Your task to perform on an android device: Go to internet settings Image 0: 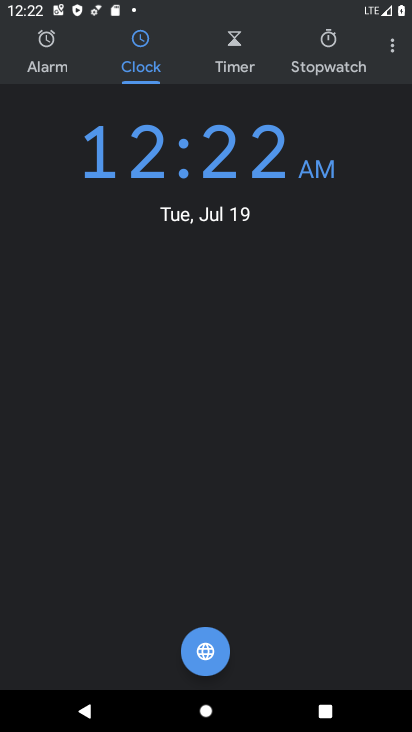
Step 0: drag from (271, 610) to (268, 28)
Your task to perform on an android device: Go to internet settings Image 1: 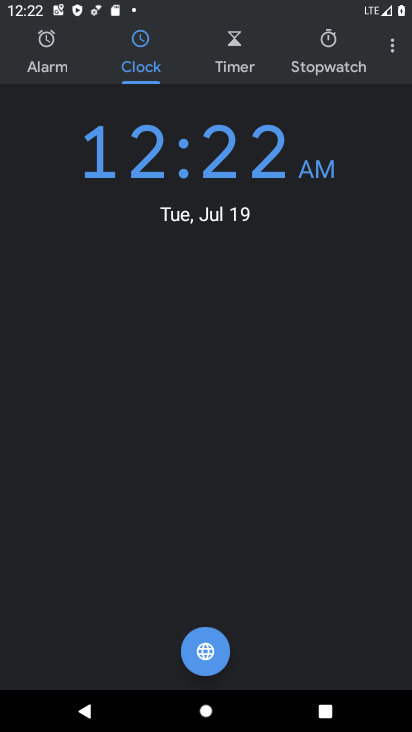
Step 1: press home button
Your task to perform on an android device: Go to internet settings Image 2: 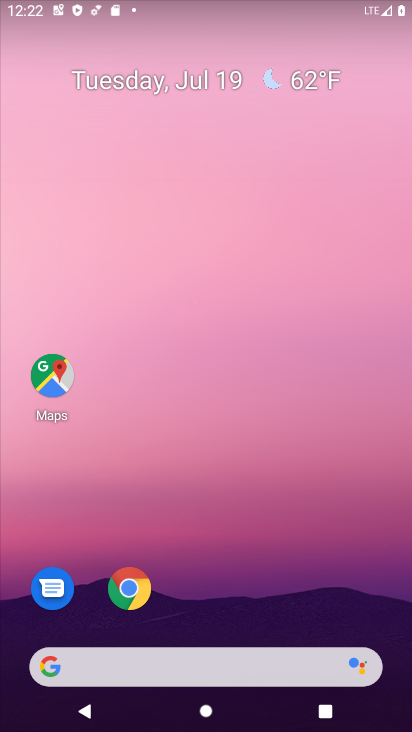
Step 2: drag from (248, 589) to (268, 96)
Your task to perform on an android device: Go to internet settings Image 3: 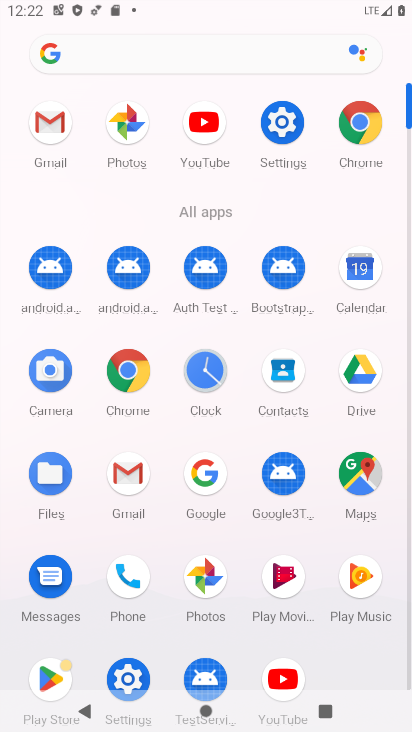
Step 3: click (288, 100)
Your task to perform on an android device: Go to internet settings Image 4: 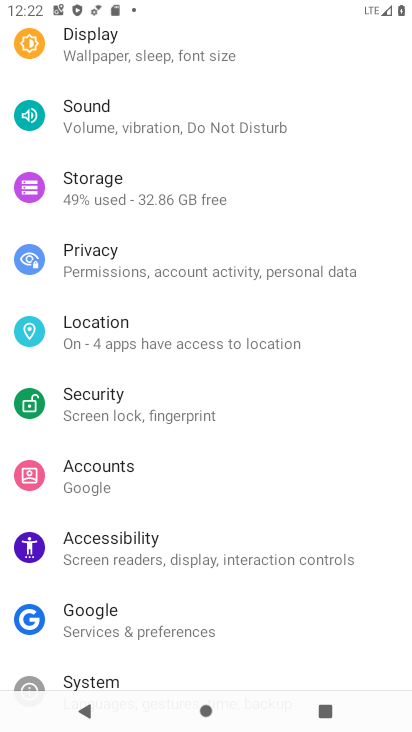
Step 4: drag from (152, 151) to (232, 405)
Your task to perform on an android device: Go to internet settings Image 5: 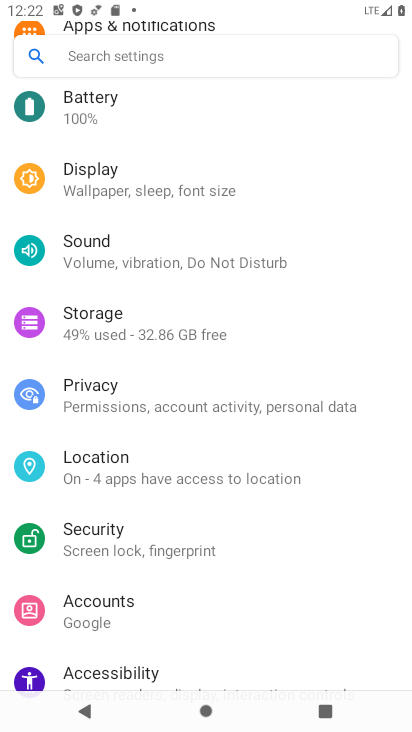
Step 5: drag from (234, 156) to (247, 392)
Your task to perform on an android device: Go to internet settings Image 6: 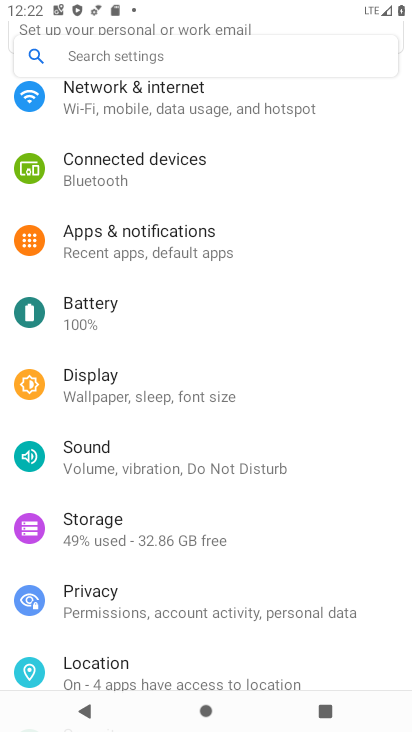
Step 6: click (130, 106)
Your task to perform on an android device: Go to internet settings Image 7: 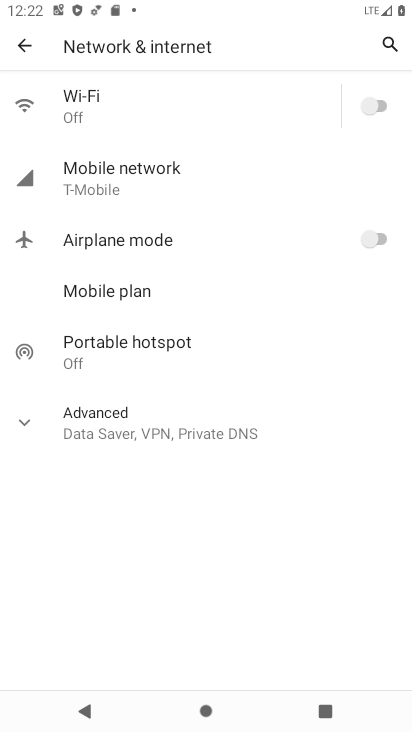
Step 7: click (142, 173)
Your task to perform on an android device: Go to internet settings Image 8: 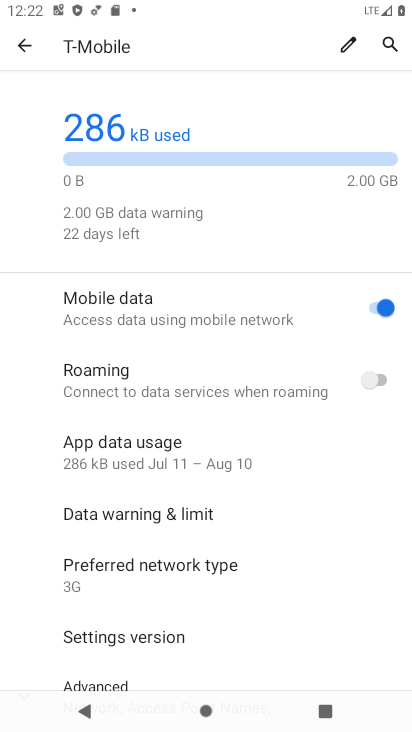
Step 8: task complete